Your task to perform on an android device: turn smart compose on in the gmail app Image 0: 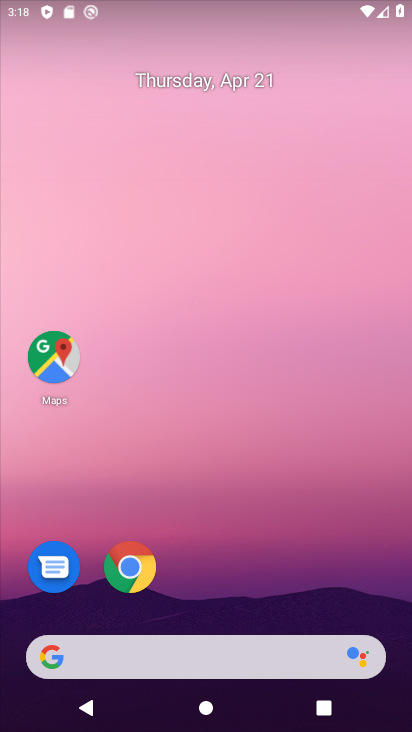
Step 0: drag from (227, 603) to (219, 2)
Your task to perform on an android device: turn smart compose on in the gmail app Image 1: 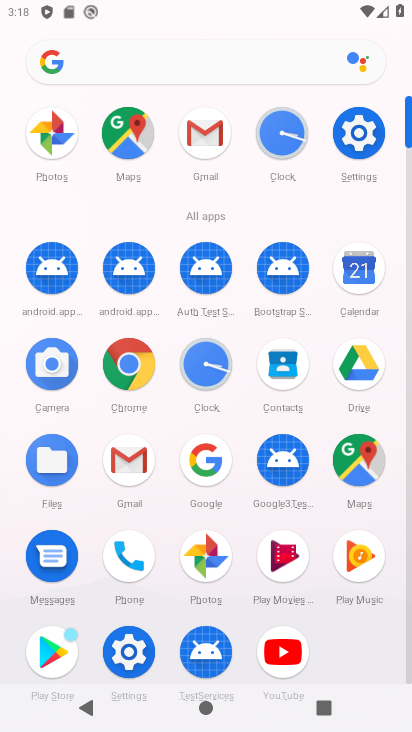
Step 1: click (203, 127)
Your task to perform on an android device: turn smart compose on in the gmail app Image 2: 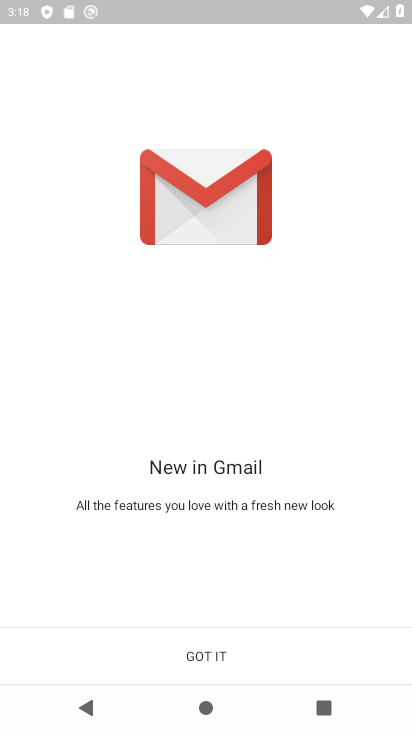
Step 2: click (209, 662)
Your task to perform on an android device: turn smart compose on in the gmail app Image 3: 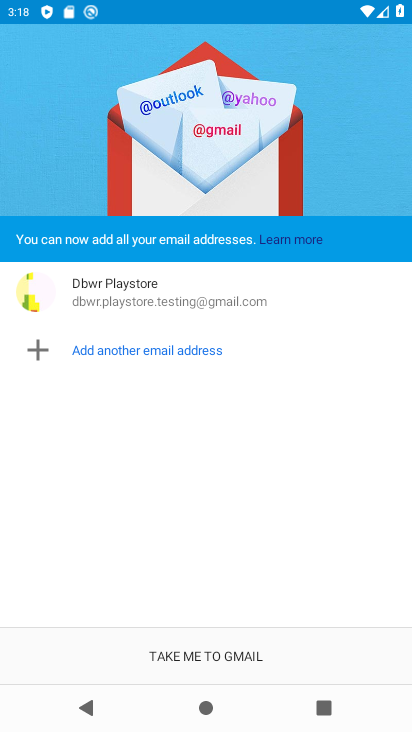
Step 3: click (200, 666)
Your task to perform on an android device: turn smart compose on in the gmail app Image 4: 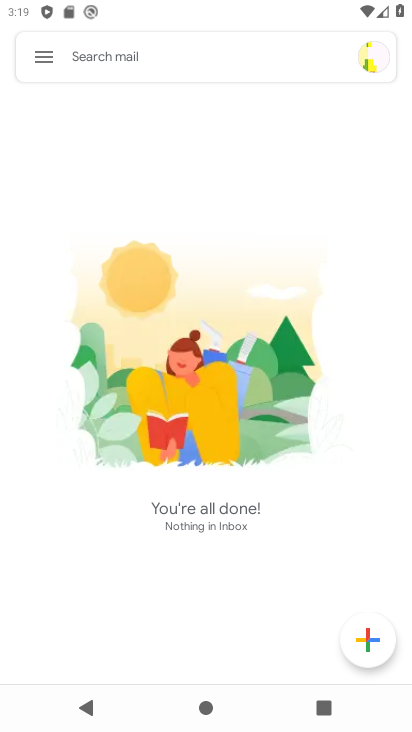
Step 4: click (41, 53)
Your task to perform on an android device: turn smart compose on in the gmail app Image 5: 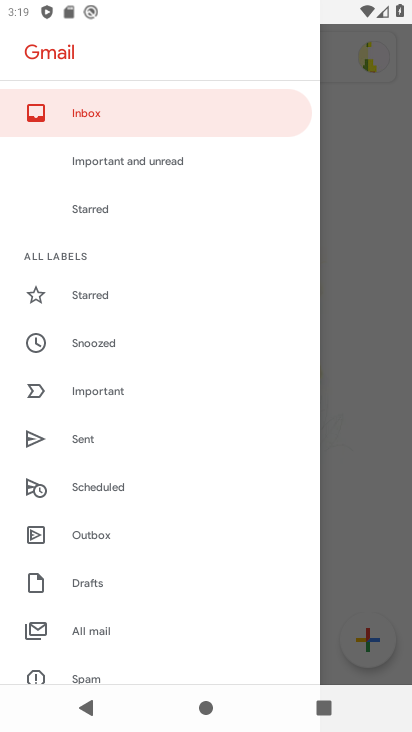
Step 5: drag from (141, 634) to (170, 163)
Your task to perform on an android device: turn smart compose on in the gmail app Image 6: 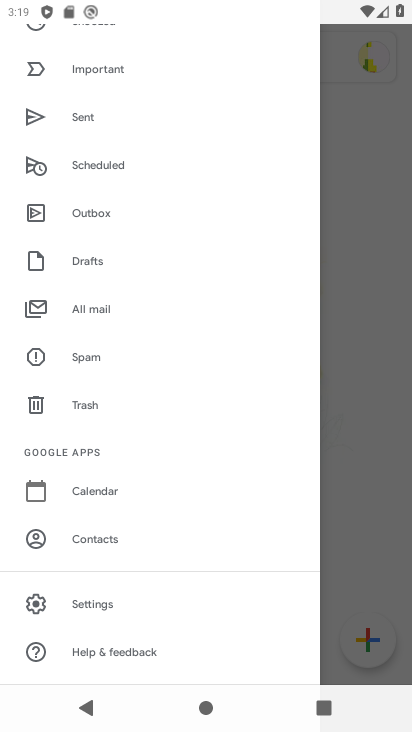
Step 6: click (129, 601)
Your task to perform on an android device: turn smart compose on in the gmail app Image 7: 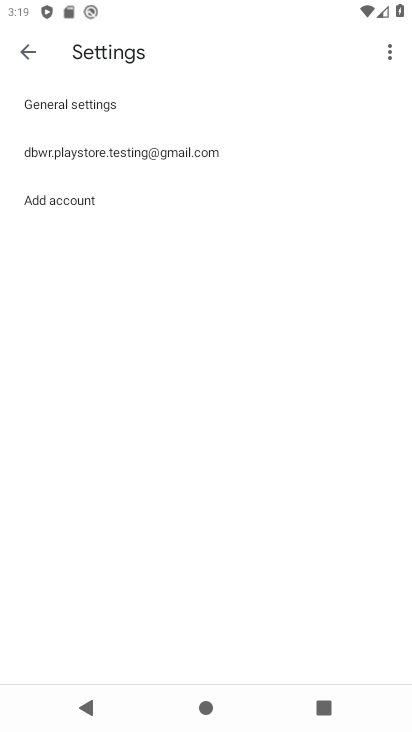
Step 7: click (229, 152)
Your task to perform on an android device: turn smart compose on in the gmail app Image 8: 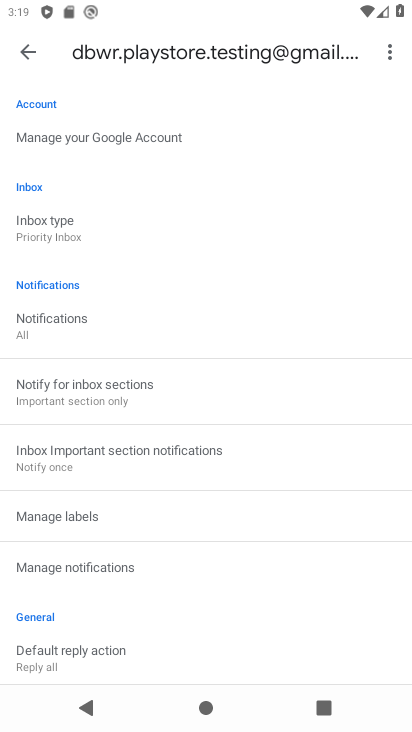
Step 8: task complete